Your task to perform on an android device: delete a single message in the gmail app Image 0: 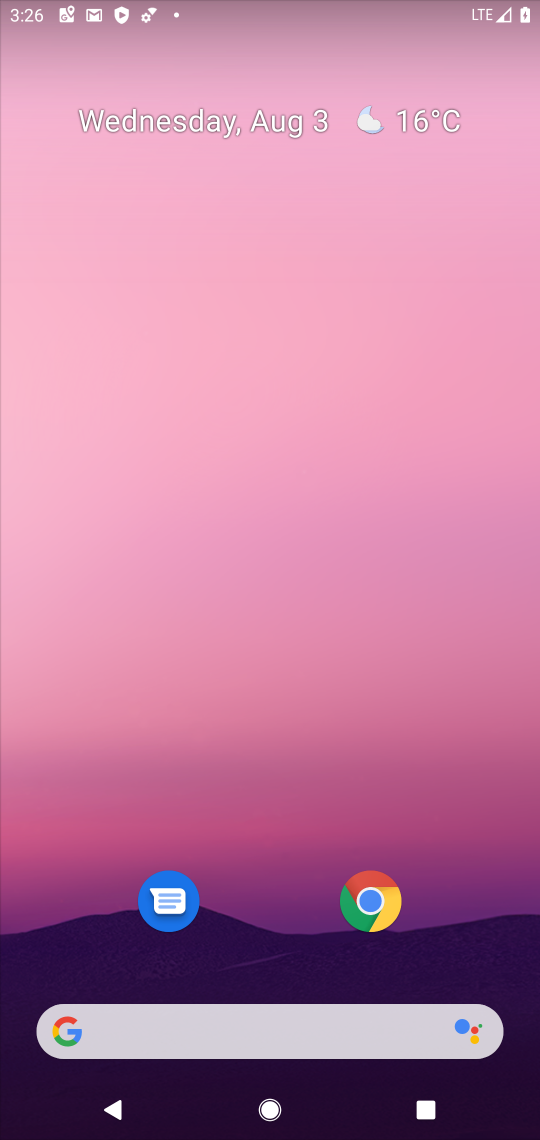
Step 0: drag from (221, 904) to (223, 162)
Your task to perform on an android device: delete a single message in the gmail app Image 1: 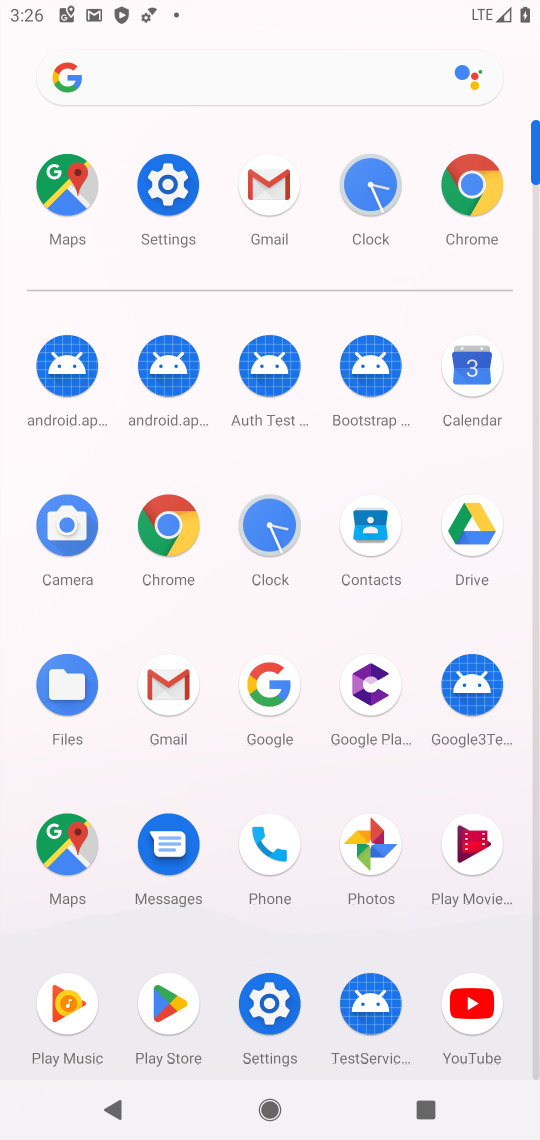
Step 1: click (271, 186)
Your task to perform on an android device: delete a single message in the gmail app Image 2: 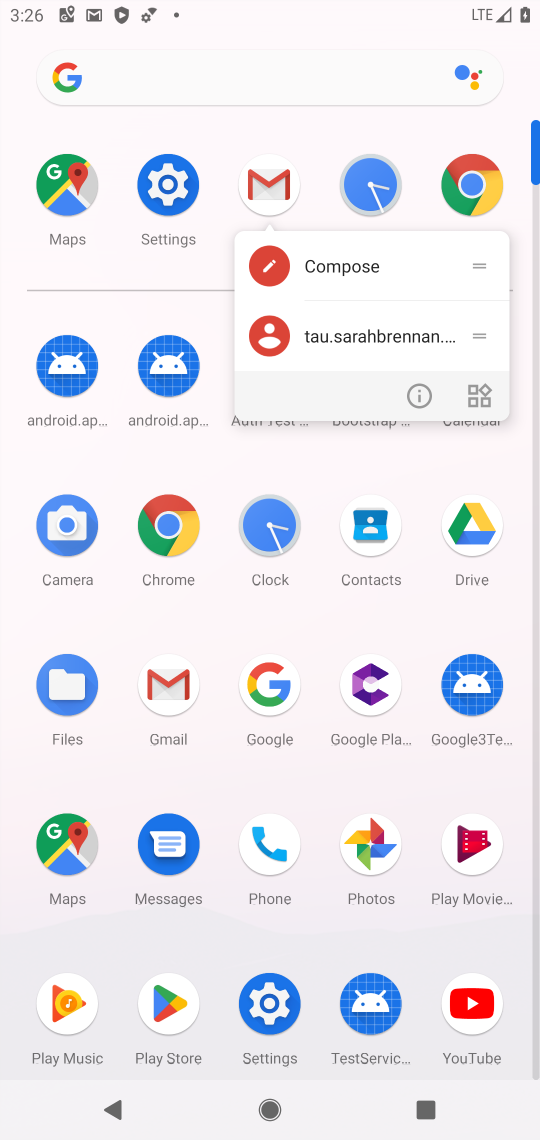
Step 2: click (271, 186)
Your task to perform on an android device: delete a single message in the gmail app Image 3: 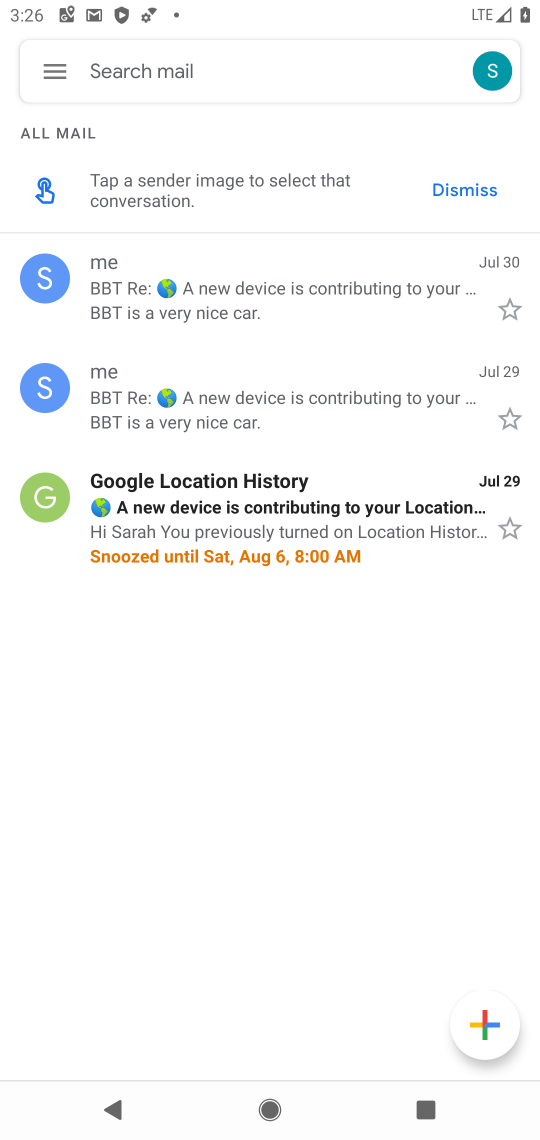
Step 3: click (71, 293)
Your task to perform on an android device: delete a single message in the gmail app Image 4: 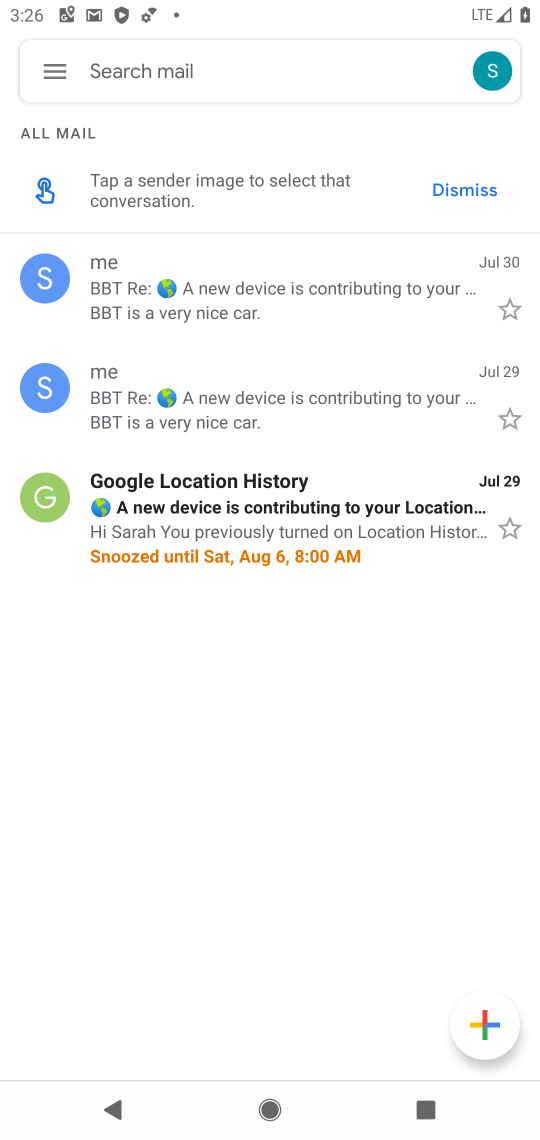
Step 4: click (122, 293)
Your task to perform on an android device: delete a single message in the gmail app Image 5: 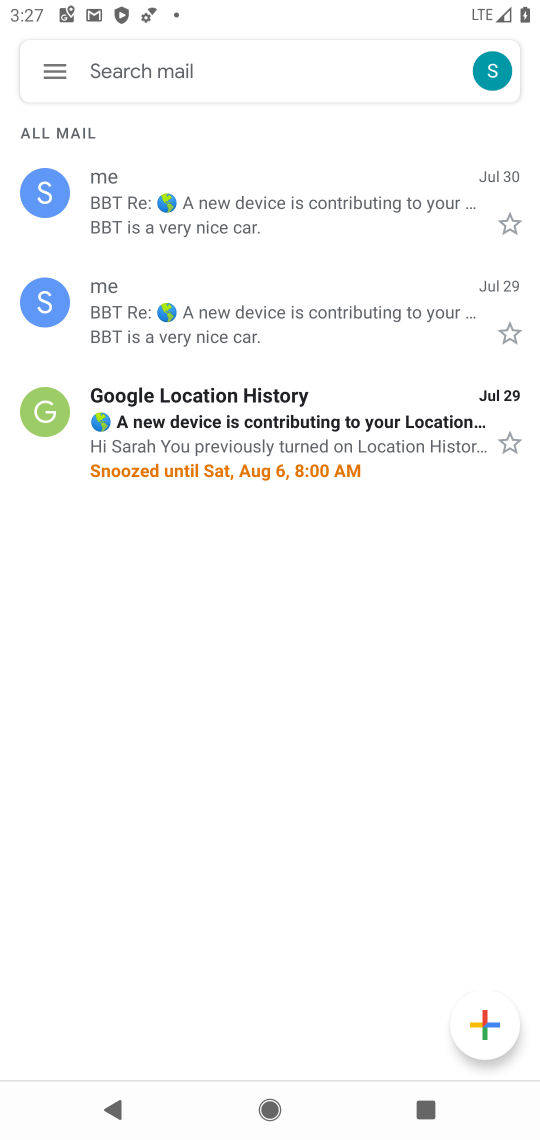
Step 5: click (297, 207)
Your task to perform on an android device: delete a single message in the gmail app Image 6: 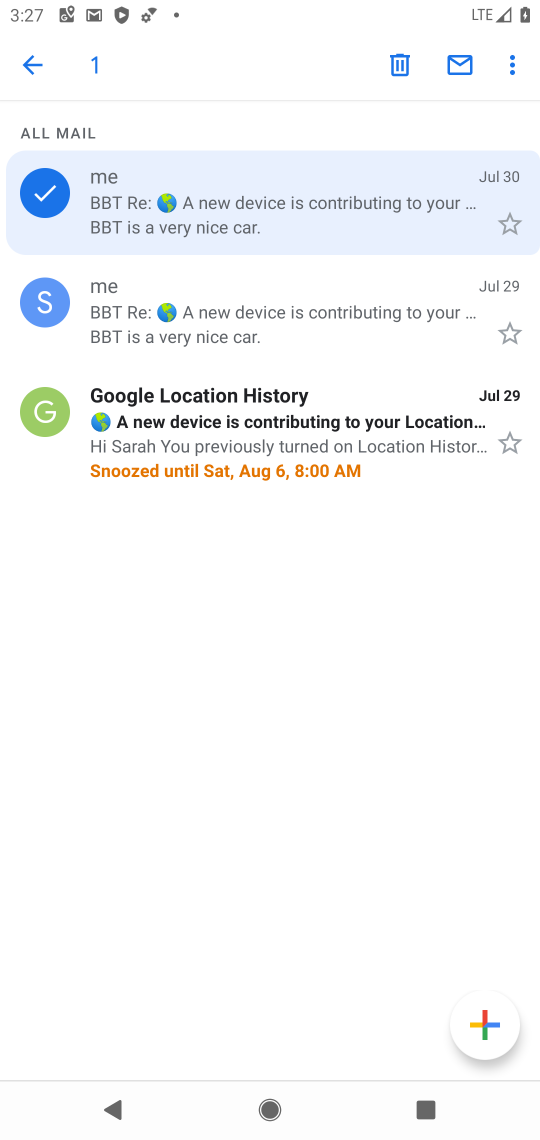
Step 6: click (393, 67)
Your task to perform on an android device: delete a single message in the gmail app Image 7: 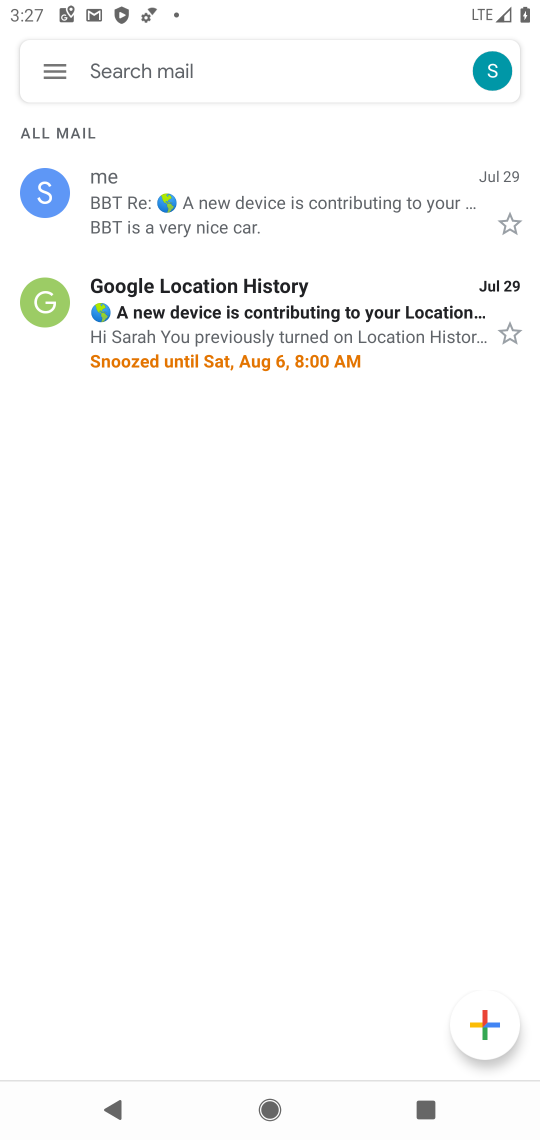
Step 7: task complete